Your task to perform on an android device: Go to display settings Image 0: 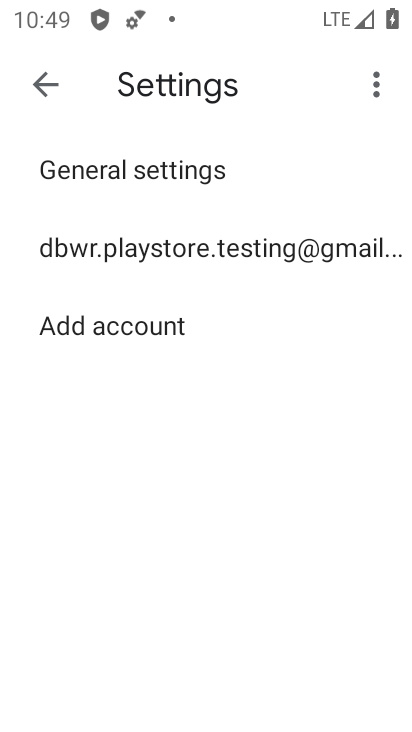
Step 0: press home button
Your task to perform on an android device: Go to display settings Image 1: 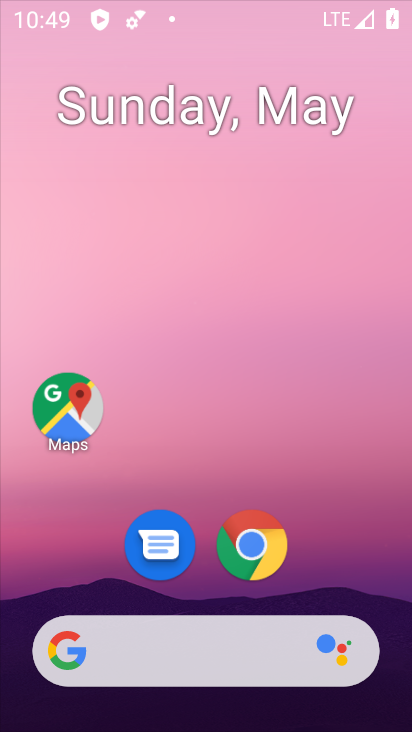
Step 1: drag from (390, 662) to (294, 33)
Your task to perform on an android device: Go to display settings Image 2: 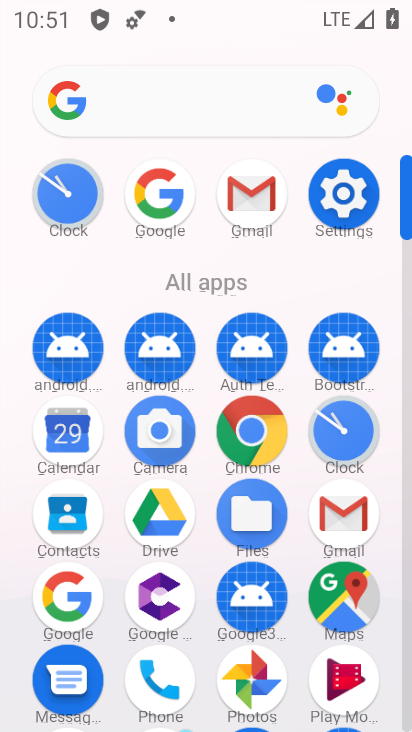
Step 2: click (346, 230)
Your task to perform on an android device: Go to display settings Image 3: 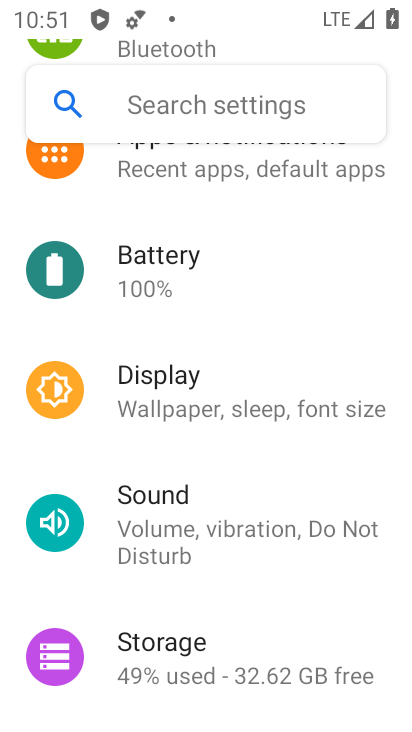
Step 3: click (111, 390)
Your task to perform on an android device: Go to display settings Image 4: 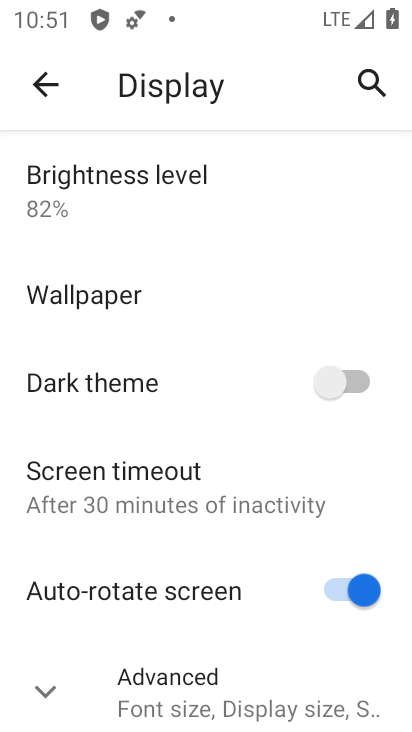
Step 4: task complete